Your task to perform on an android device: check data usage Image 0: 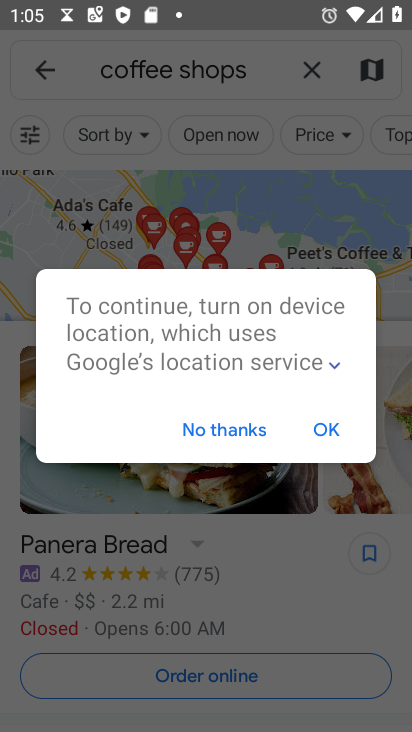
Step 0: click (335, 430)
Your task to perform on an android device: check data usage Image 1: 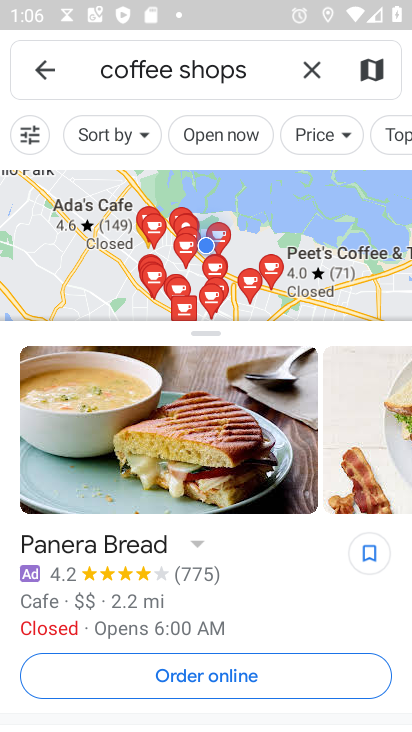
Step 1: press home button
Your task to perform on an android device: check data usage Image 2: 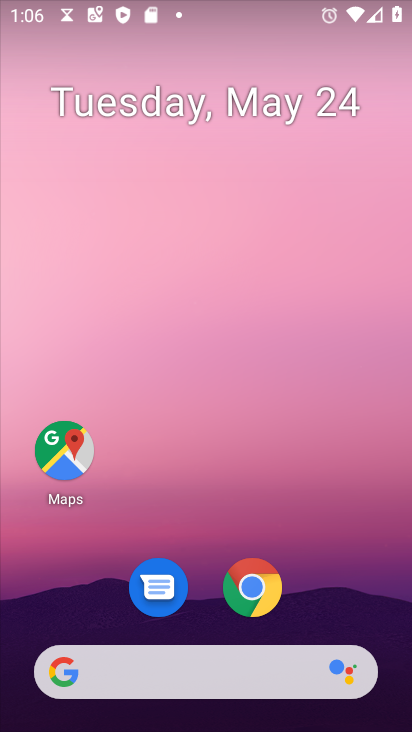
Step 2: drag from (250, 656) to (264, 232)
Your task to perform on an android device: check data usage Image 3: 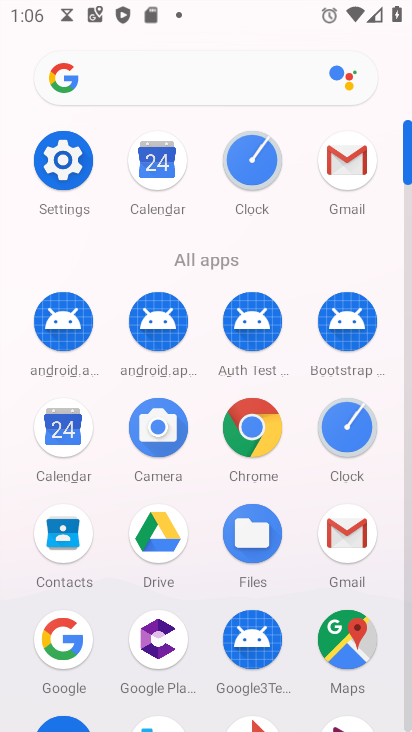
Step 3: click (70, 172)
Your task to perform on an android device: check data usage Image 4: 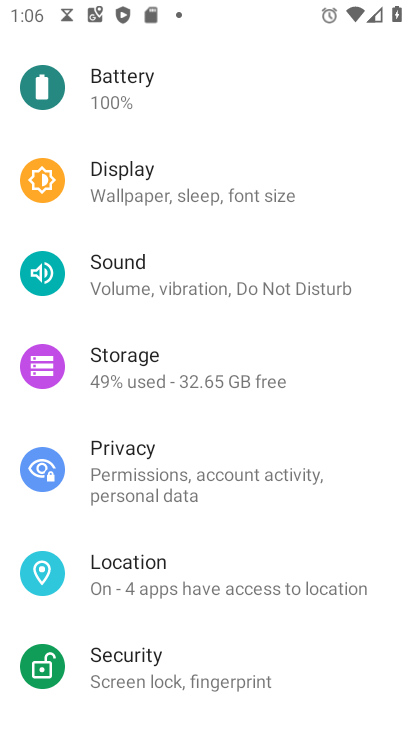
Step 4: drag from (154, 146) to (188, 632)
Your task to perform on an android device: check data usage Image 5: 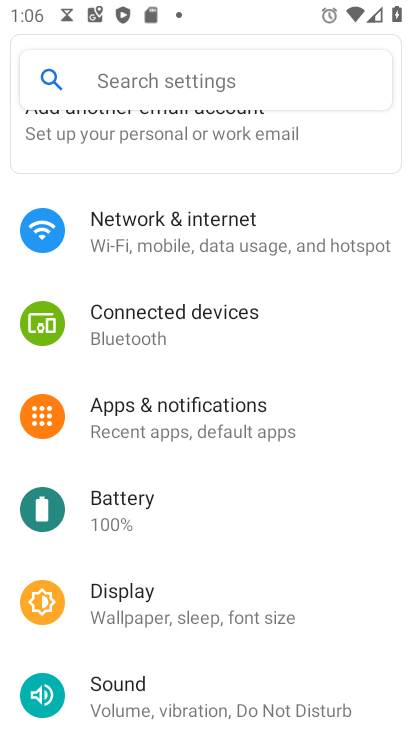
Step 5: click (145, 244)
Your task to perform on an android device: check data usage Image 6: 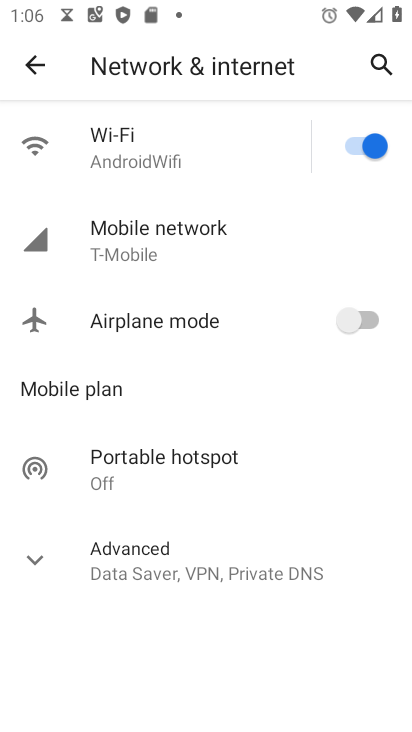
Step 6: click (195, 254)
Your task to perform on an android device: check data usage Image 7: 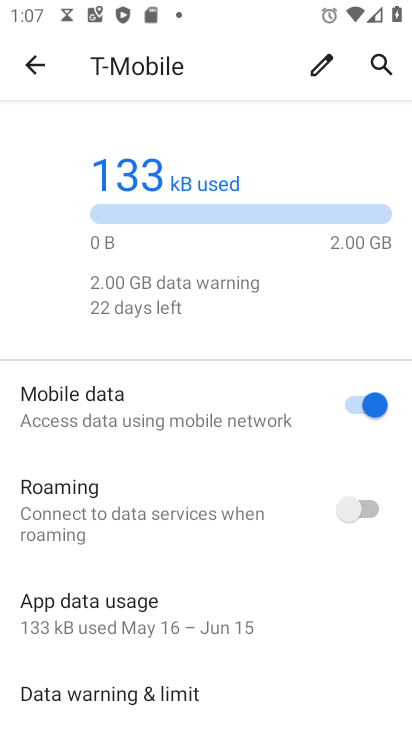
Step 7: task complete